Your task to perform on an android device: Go to ESPN.com Image 0: 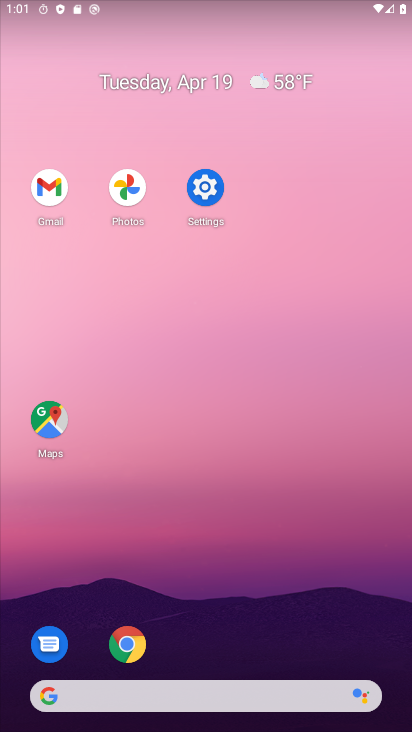
Step 0: click (123, 640)
Your task to perform on an android device: Go to ESPN.com Image 1: 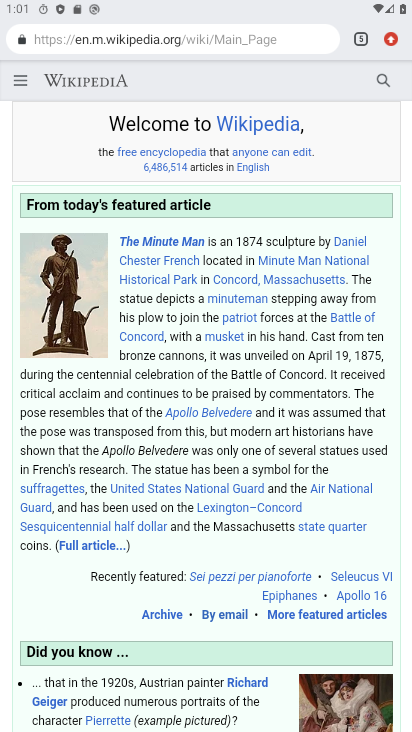
Step 1: click (357, 33)
Your task to perform on an android device: Go to ESPN.com Image 2: 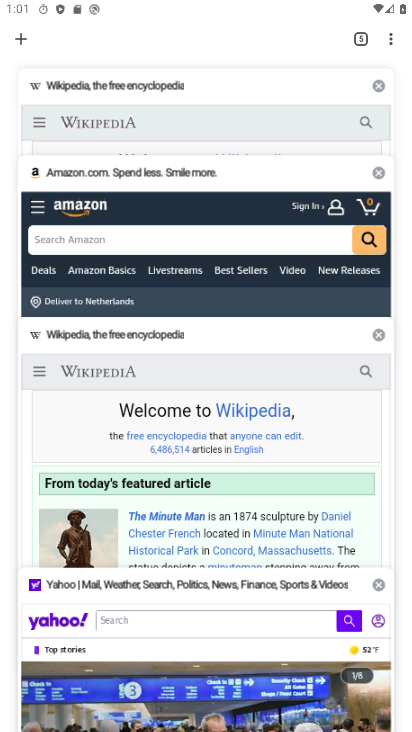
Step 2: click (14, 39)
Your task to perform on an android device: Go to ESPN.com Image 3: 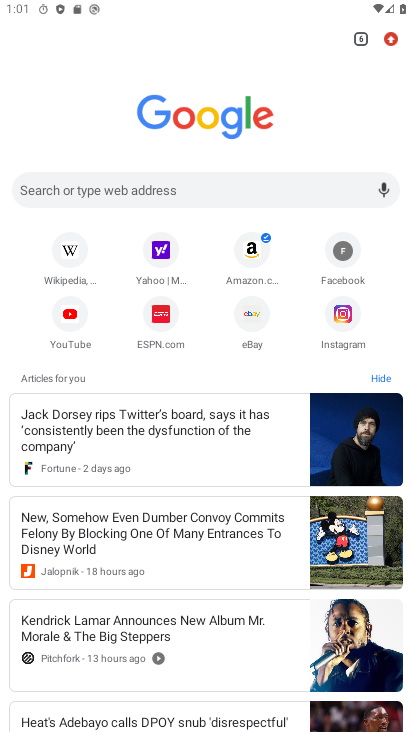
Step 3: click (161, 318)
Your task to perform on an android device: Go to ESPN.com Image 4: 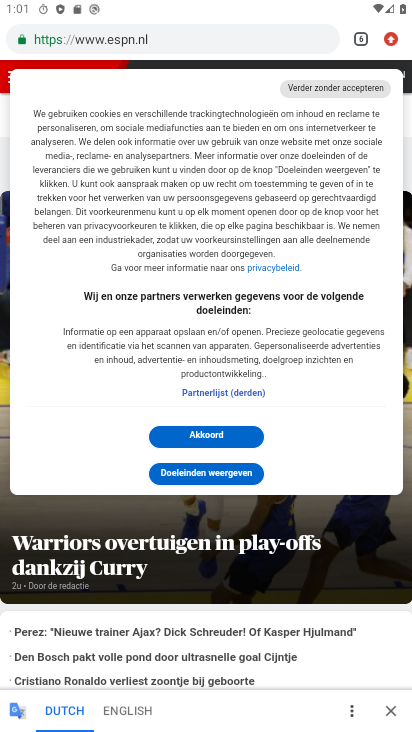
Step 4: task complete